Your task to perform on an android device: toggle translation in the chrome app Image 0: 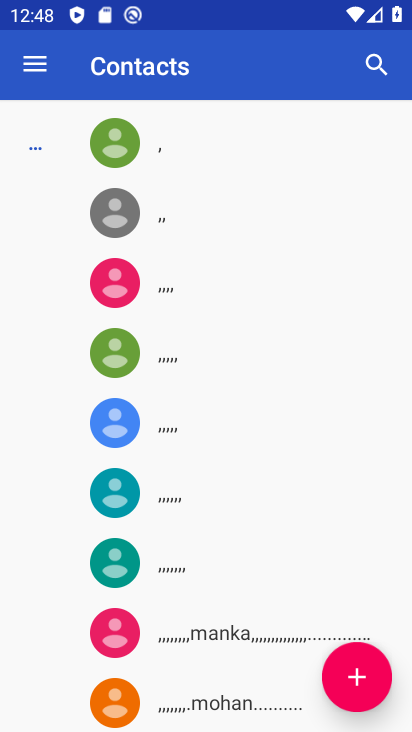
Step 0: press home button
Your task to perform on an android device: toggle translation in the chrome app Image 1: 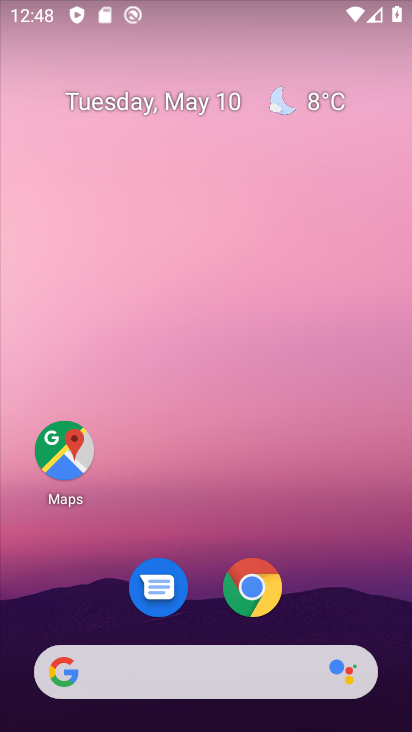
Step 1: click (253, 572)
Your task to perform on an android device: toggle translation in the chrome app Image 2: 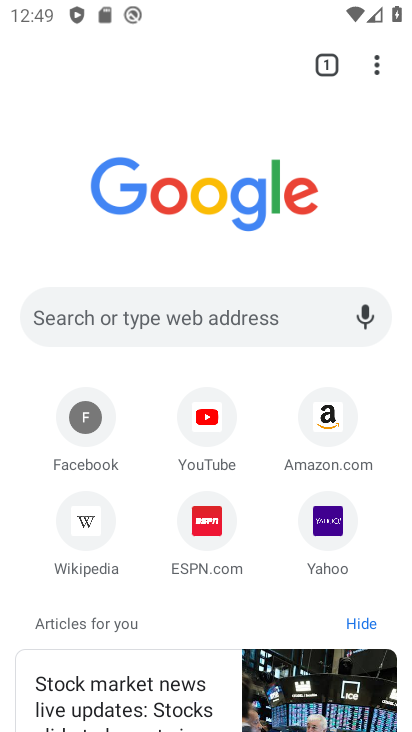
Step 2: click (382, 76)
Your task to perform on an android device: toggle translation in the chrome app Image 3: 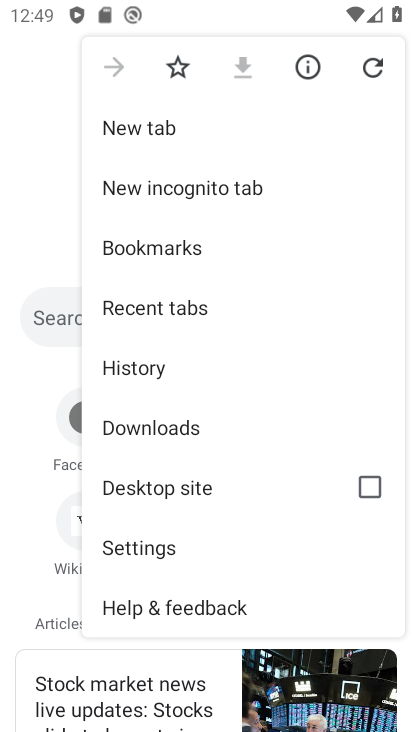
Step 3: click (171, 552)
Your task to perform on an android device: toggle translation in the chrome app Image 4: 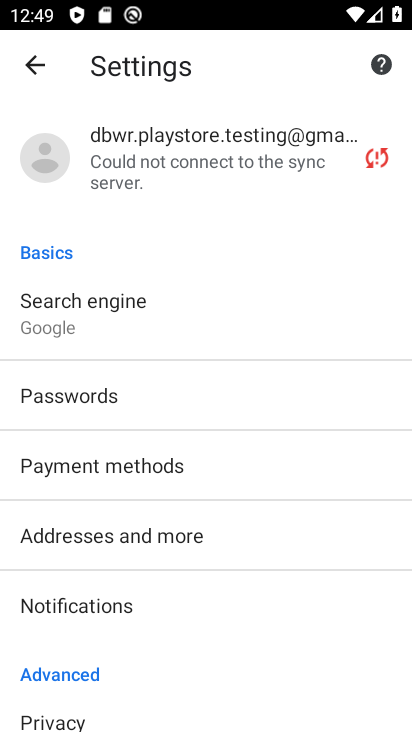
Step 4: drag from (156, 573) to (145, 358)
Your task to perform on an android device: toggle translation in the chrome app Image 5: 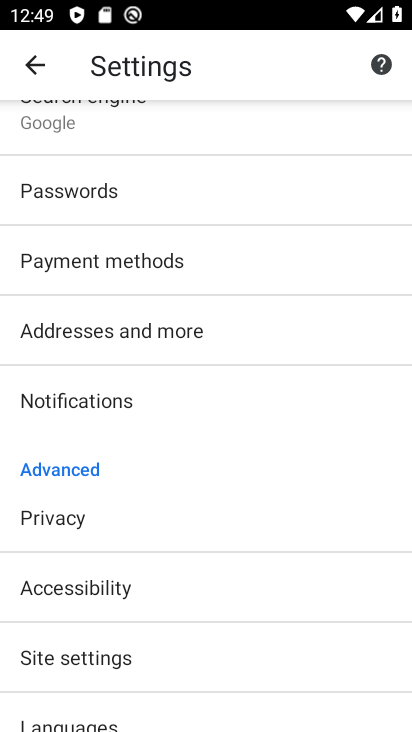
Step 5: drag from (114, 642) to (106, 438)
Your task to perform on an android device: toggle translation in the chrome app Image 6: 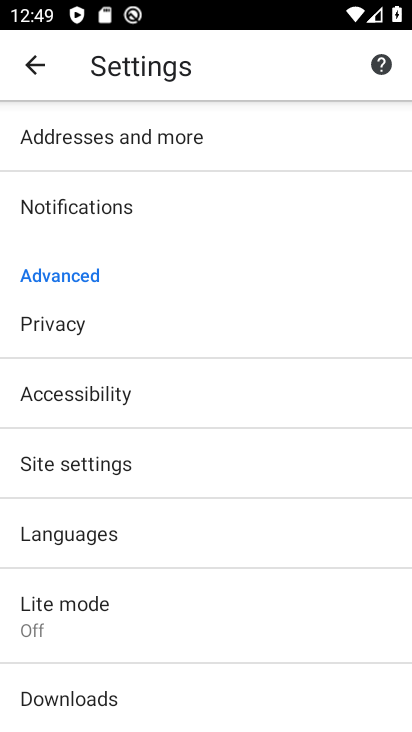
Step 6: click (101, 533)
Your task to perform on an android device: toggle translation in the chrome app Image 7: 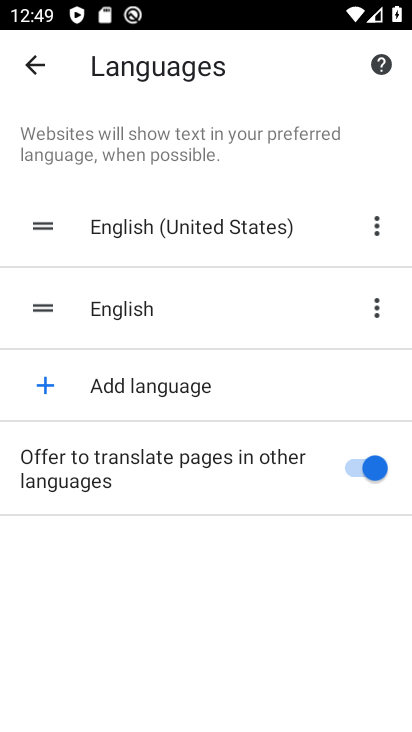
Step 7: click (361, 466)
Your task to perform on an android device: toggle translation in the chrome app Image 8: 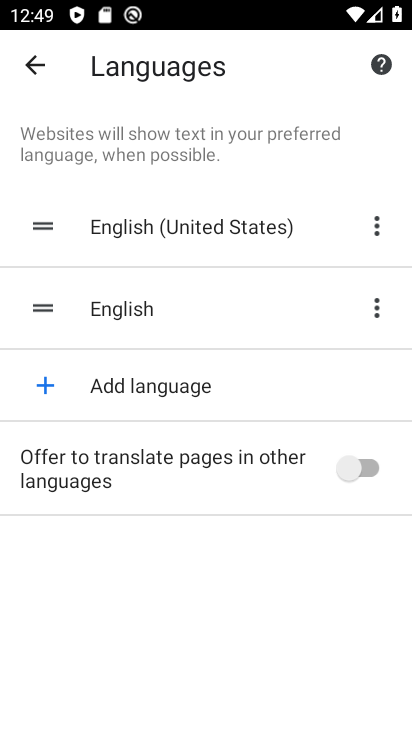
Step 8: task complete